Your task to perform on an android device: toggle notifications settings in the gmail app Image 0: 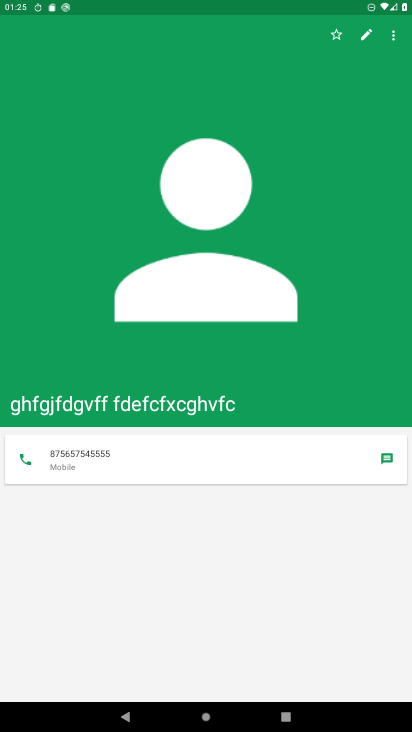
Step 0: press home button
Your task to perform on an android device: toggle notifications settings in the gmail app Image 1: 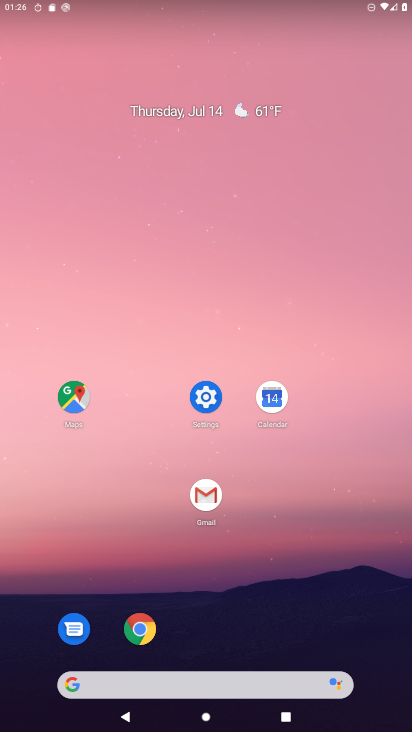
Step 1: click (212, 501)
Your task to perform on an android device: toggle notifications settings in the gmail app Image 2: 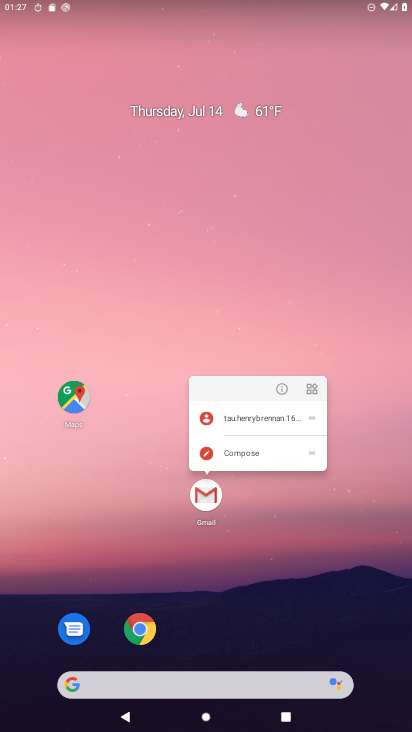
Step 2: click (296, 501)
Your task to perform on an android device: toggle notifications settings in the gmail app Image 3: 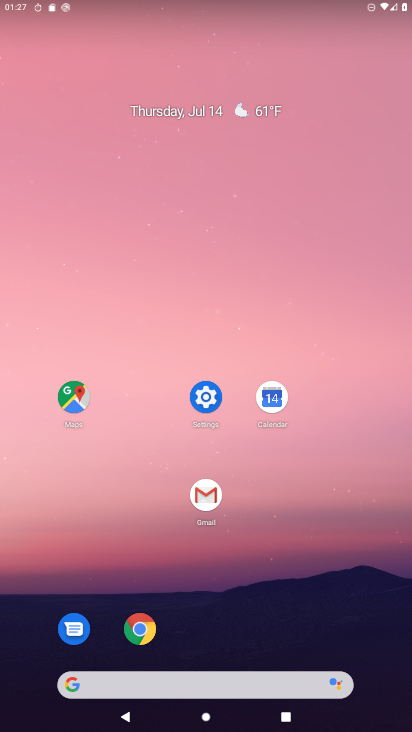
Step 3: click (201, 500)
Your task to perform on an android device: toggle notifications settings in the gmail app Image 4: 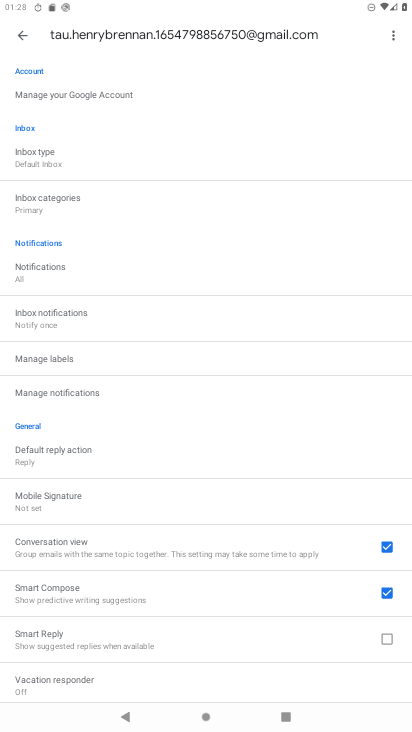
Step 4: click (37, 270)
Your task to perform on an android device: toggle notifications settings in the gmail app Image 5: 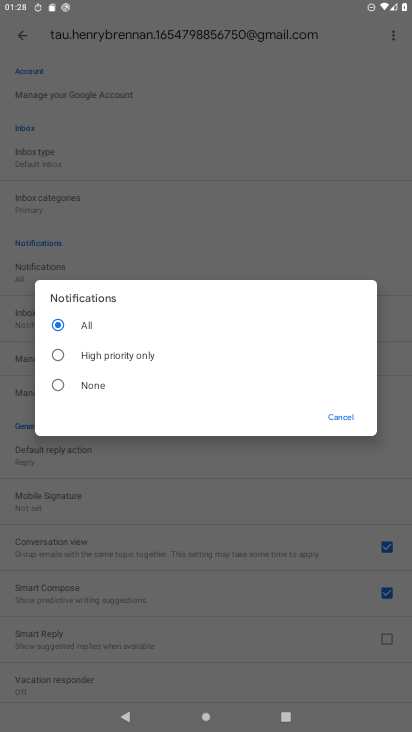
Step 5: click (53, 358)
Your task to perform on an android device: toggle notifications settings in the gmail app Image 6: 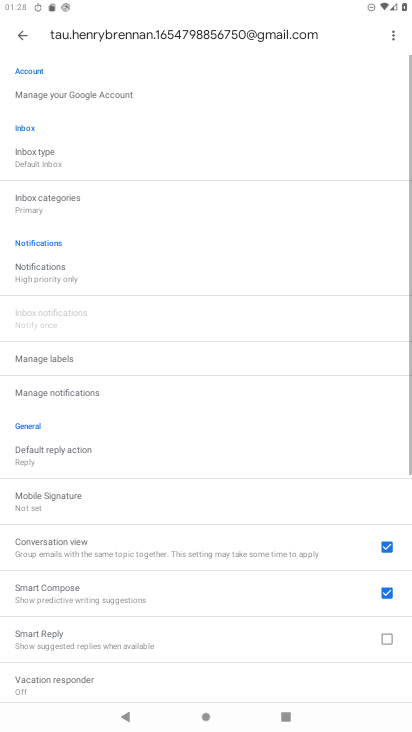
Step 6: task complete